Your task to perform on an android device: Open calendar and show me the second week of next month Image 0: 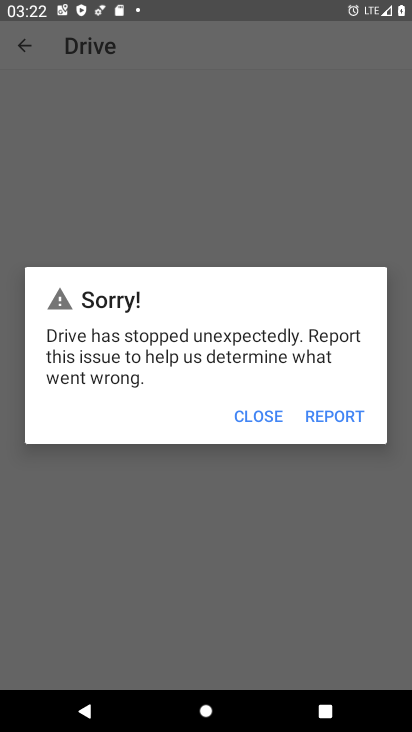
Step 0: press home button
Your task to perform on an android device: Open calendar and show me the second week of next month Image 1: 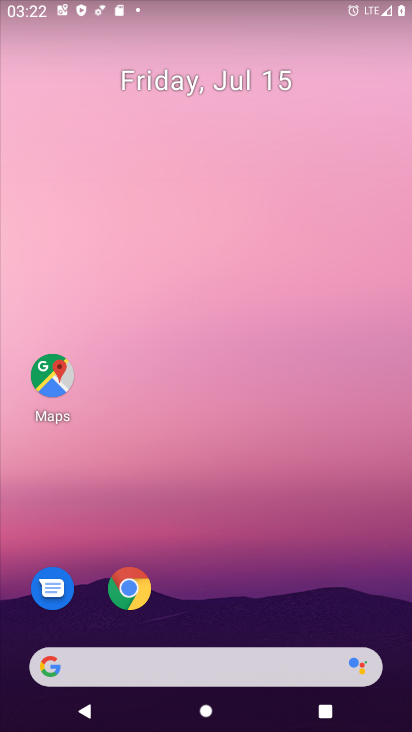
Step 1: drag from (177, 672) to (131, 249)
Your task to perform on an android device: Open calendar and show me the second week of next month Image 2: 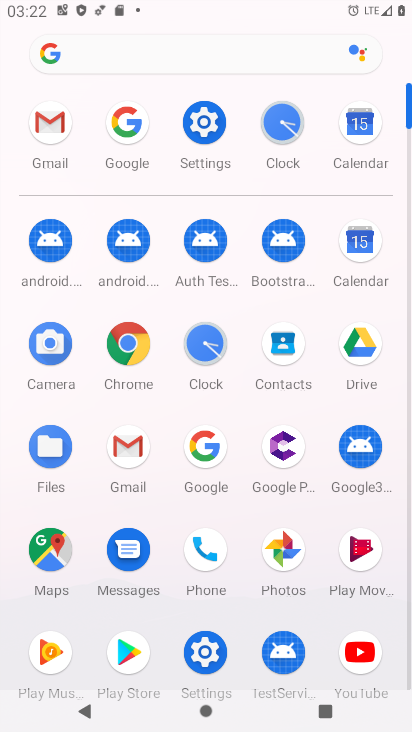
Step 2: click (360, 241)
Your task to perform on an android device: Open calendar and show me the second week of next month Image 3: 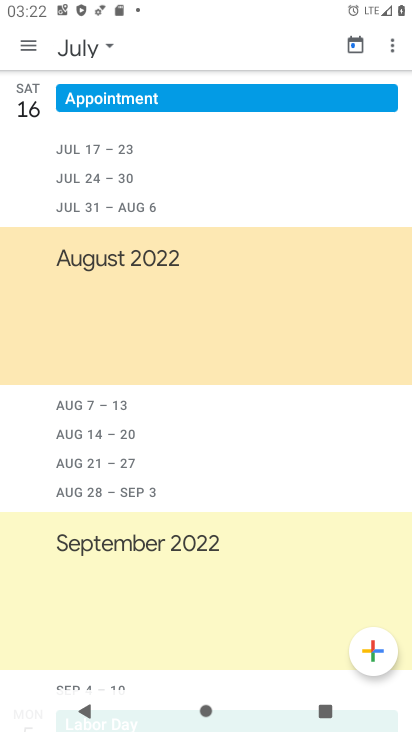
Step 3: click (356, 45)
Your task to perform on an android device: Open calendar and show me the second week of next month Image 4: 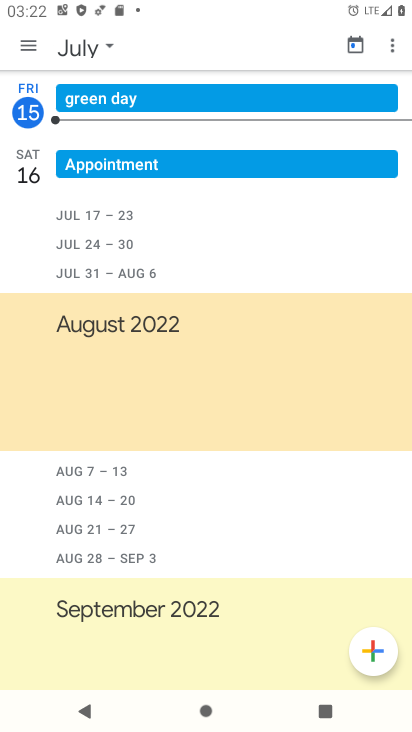
Step 4: click (107, 40)
Your task to perform on an android device: Open calendar and show me the second week of next month Image 5: 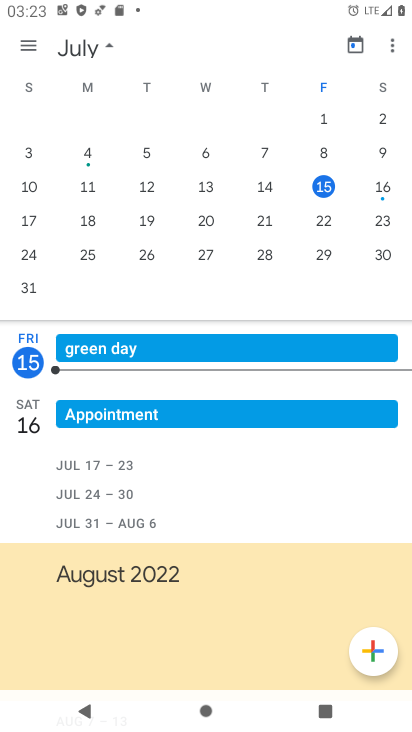
Step 5: drag from (392, 238) to (5, 260)
Your task to perform on an android device: Open calendar and show me the second week of next month Image 6: 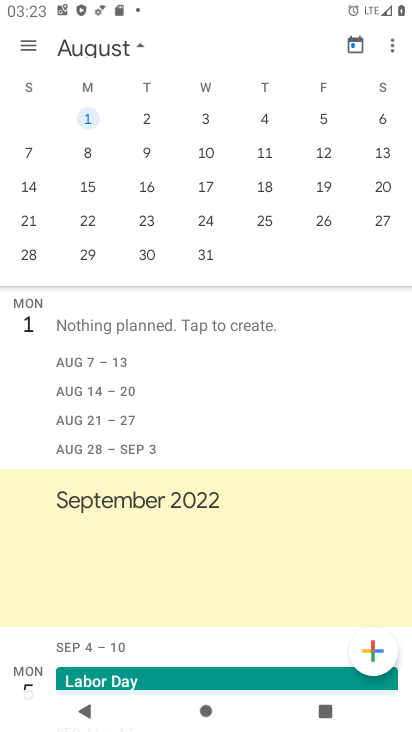
Step 6: click (83, 151)
Your task to perform on an android device: Open calendar and show me the second week of next month Image 7: 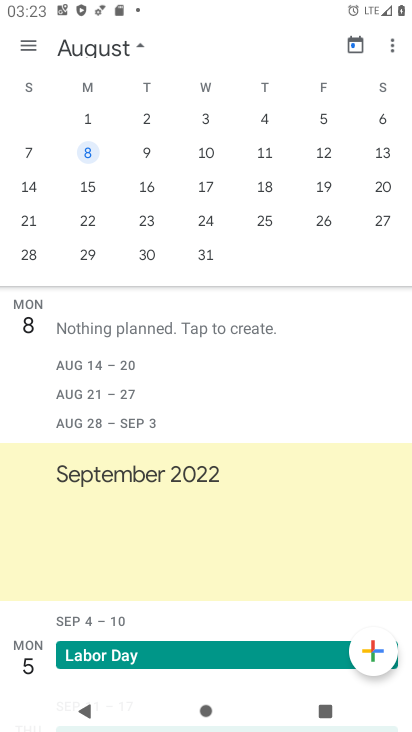
Step 7: click (22, 46)
Your task to perform on an android device: Open calendar and show me the second week of next month Image 8: 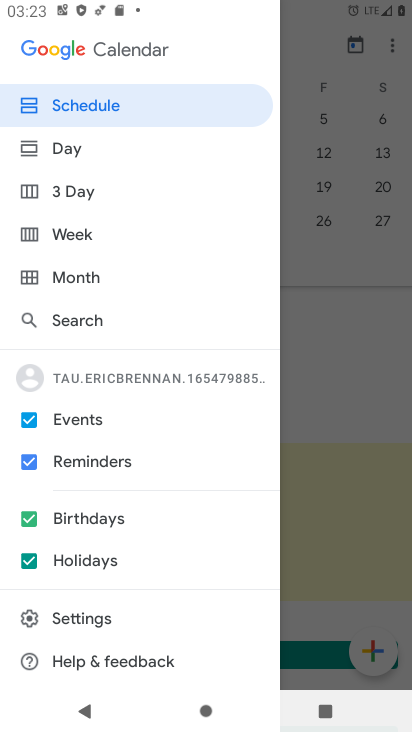
Step 8: click (69, 233)
Your task to perform on an android device: Open calendar and show me the second week of next month Image 9: 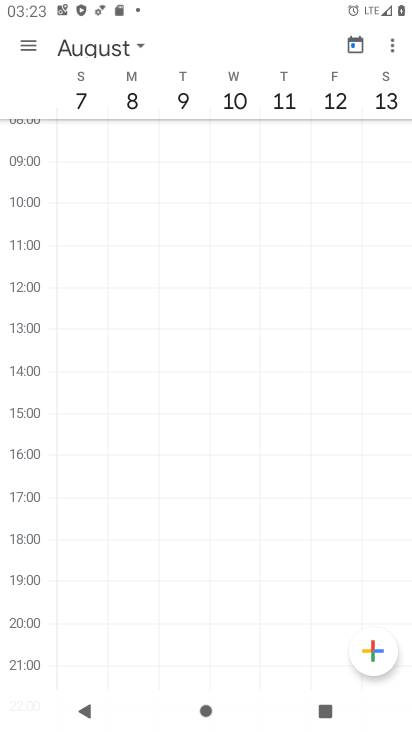
Step 9: task complete